Your task to perform on an android device: Open calendar and show me the second week of next month Image 0: 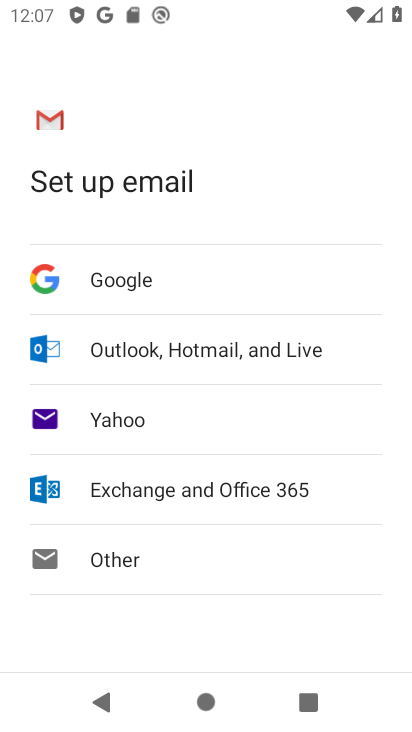
Step 0: click (273, 707)
Your task to perform on an android device: Open calendar and show me the second week of next month Image 1: 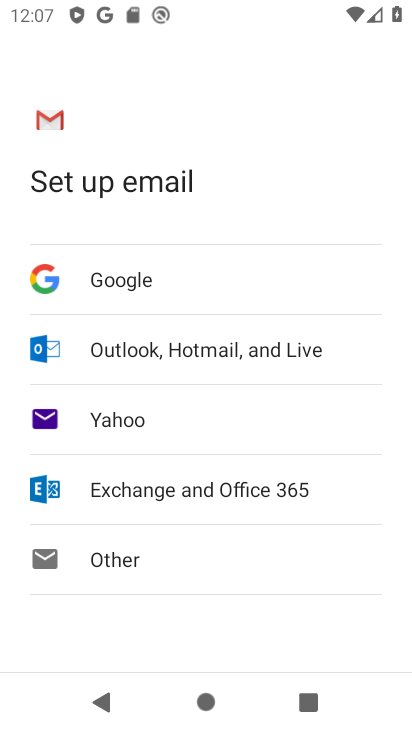
Step 1: press back button
Your task to perform on an android device: Open calendar and show me the second week of next month Image 2: 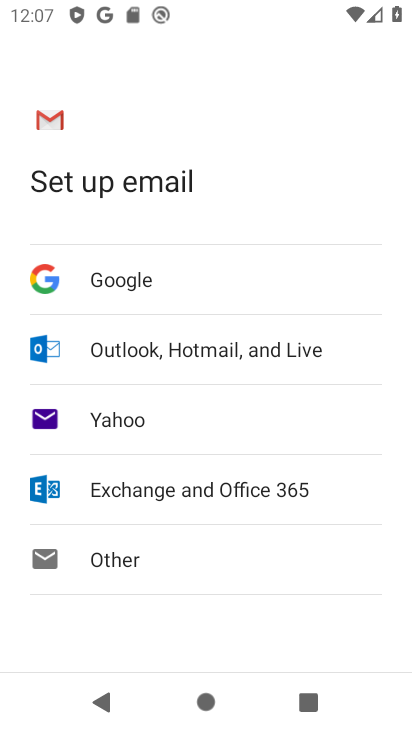
Step 2: press back button
Your task to perform on an android device: Open calendar and show me the second week of next month Image 3: 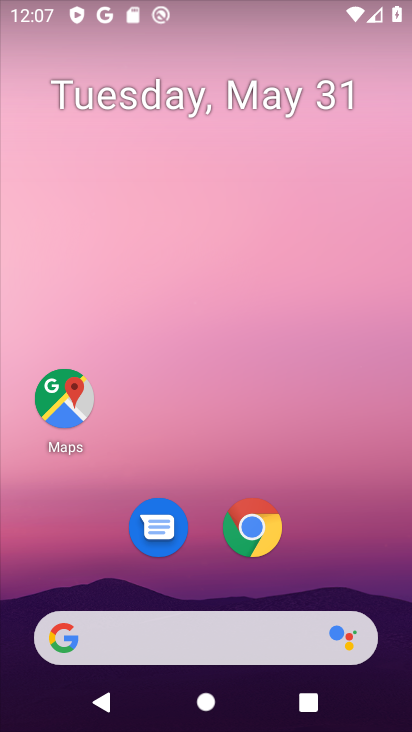
Step 3: drag from (243, 631) to (149, 189)
Your task to perform on an android device: Open calendar and show me the second week of next month Image 4: 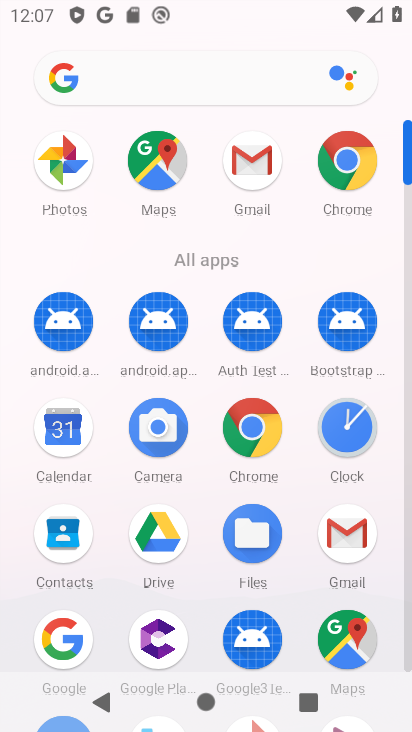
Step 4: click (55, 425)
Your task to perform on an android device: Open calendar and show me the second week of next month Image 5: 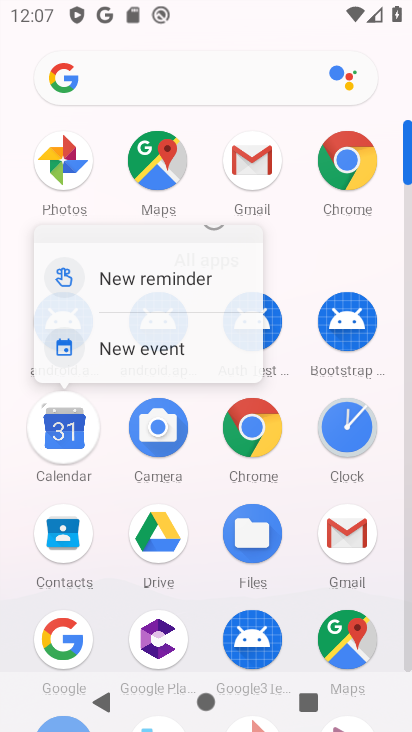
Step 5: click (57, 429)
Your task to perform on an android device: Open calendar and show me the second week of next month Image 6: 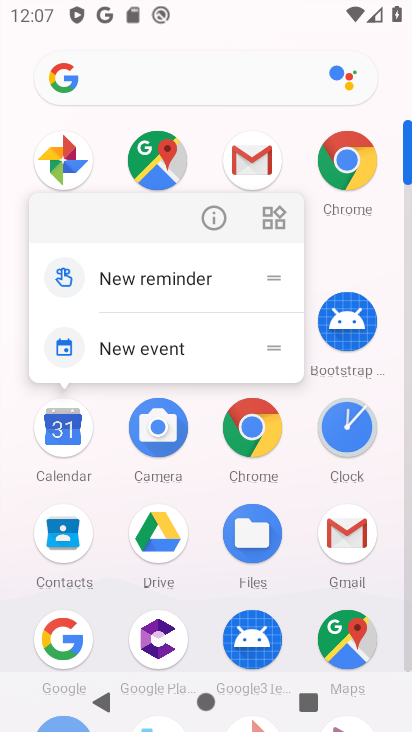
Step 6: click (57, 429)
Your task to perform on an android device: Open calendar and show me the second week of next month Image 7: 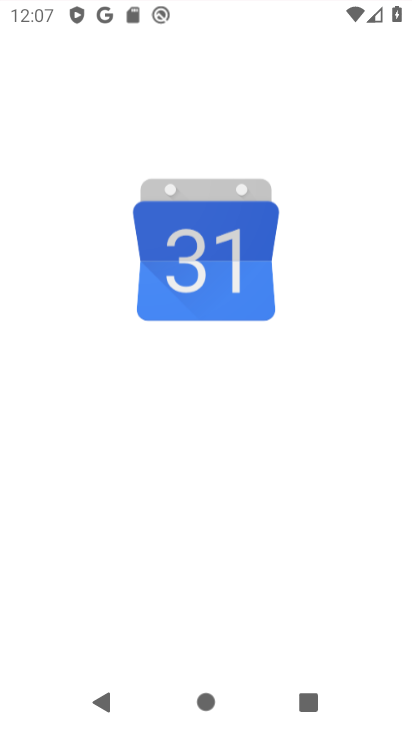
Step 7: click (63, 432)
Your task to perform on an android device: Open calendar and show me the second week of next month Image 8: 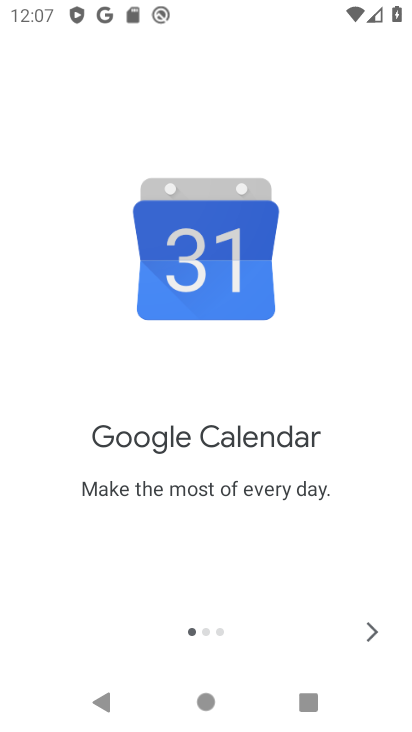
Step 8: click (373, 630)
Your task to perform on an android device: Open calendar and show me the second week of next month Image 9: 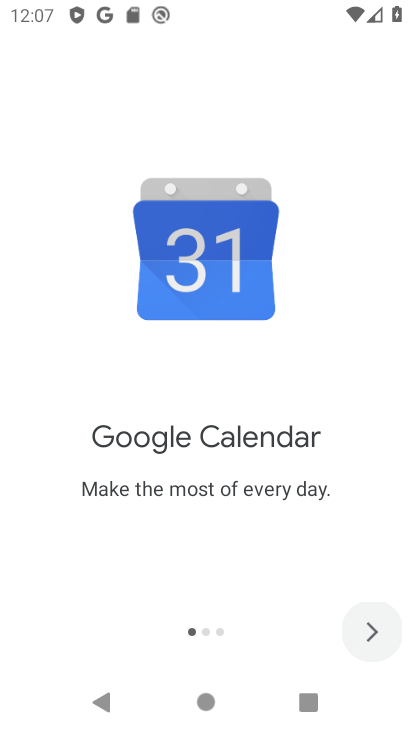
Step 9: click (373, 630)
Your task to perform on an android device: Open calendar and show me the second week of next month Image 10: 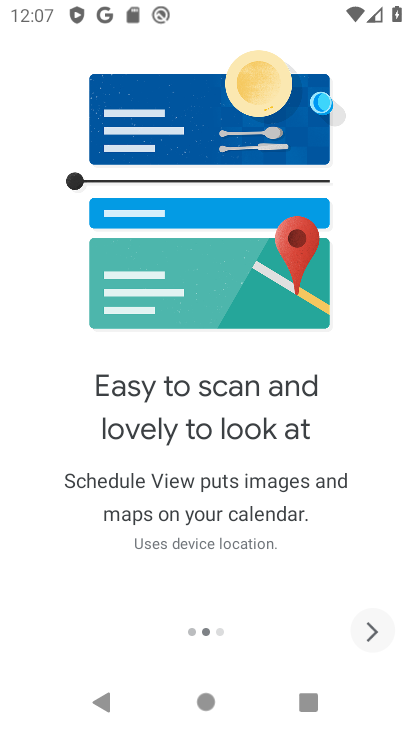
Step 10: click (373, 630)
Your task to perform on an android device: Open calendar and show me the second week of next month Image 11: 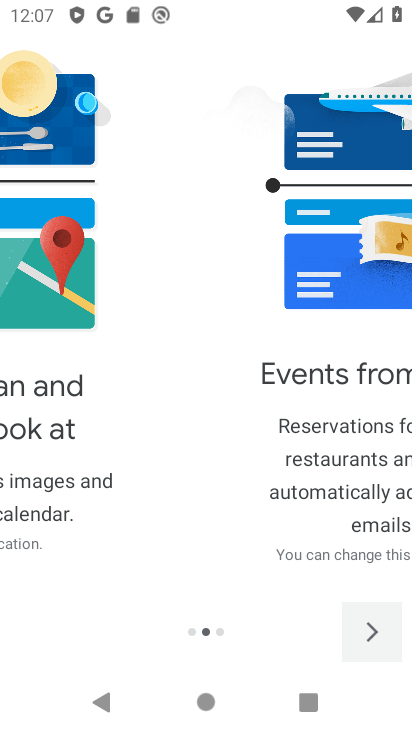
Step 11: click (373, 630)
Your task to perform on an android device: Open calendar and show me the second week of next month Image 12: 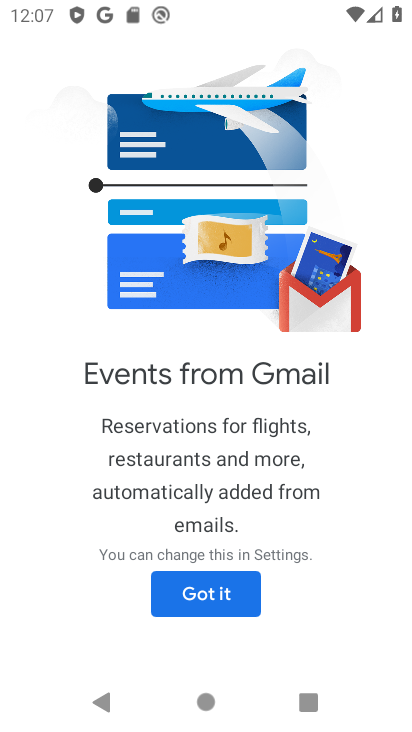
Step 12: click (371, 634)
Your task to perform on an android device: Open calendar and show me the second week of next month Image 13: 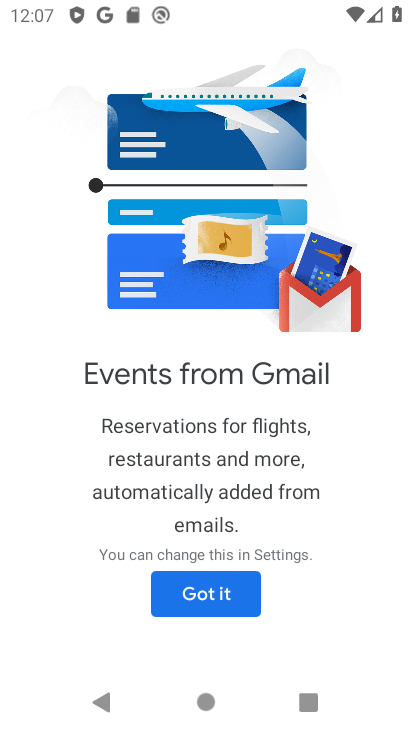
Step 13: click (210, 579)
Your task to perform on an android device: Open calendar and show me the second week of next month Image 14: 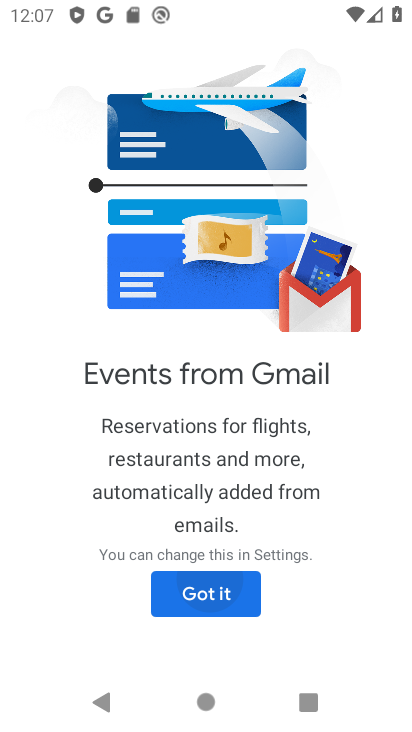
Step 14: click (211, 581)
Your task to perform on an android device: Open calendar and show me the second week of next month Image 15: 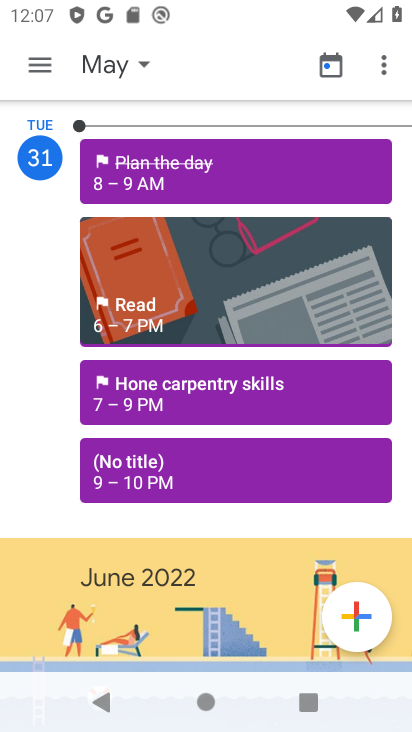
Step 15: click (140, 67)
Your task to perform on an android device: Open calendar and show me the second week of next month Image 16: 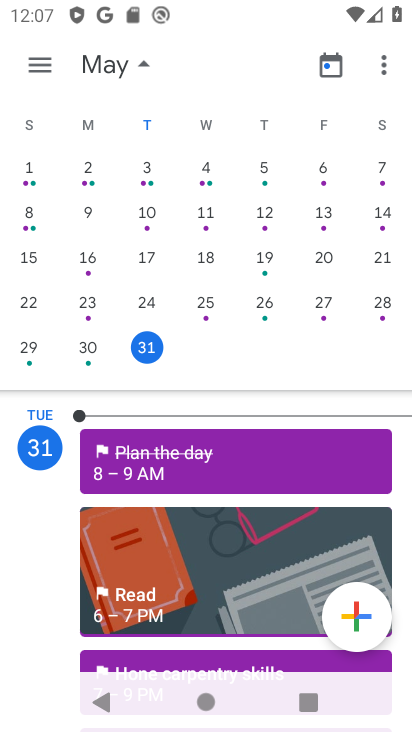
Step 16: drag from (293, 271) to (92, 287)
Your task to perform on an android device: Open calendar and show me the second week of next month Image 17: 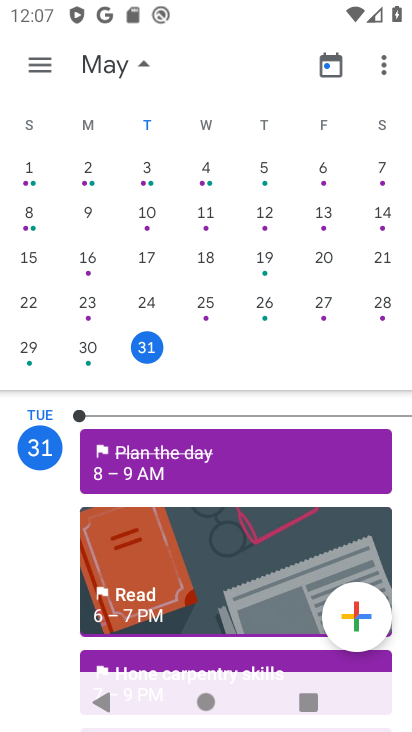
Step 17: drag from (309, 223) to (17, 320)
Your task to perform on an android device: Open calendar and show me the second week of next month Image 18: 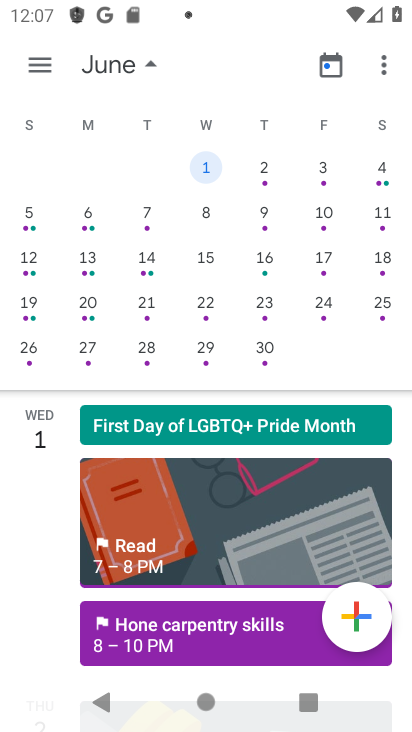
Step 18: click (188, 218)
Your task to perform on an android device: Open calendar and show me the second week of next month Image 19: 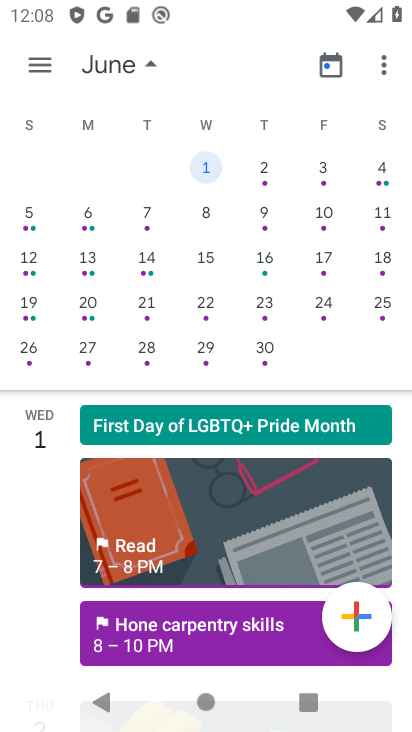
Step 19: click (194, 216)
Your task to perform on an android device: Open calendar and show me the second week of next month Image 20: 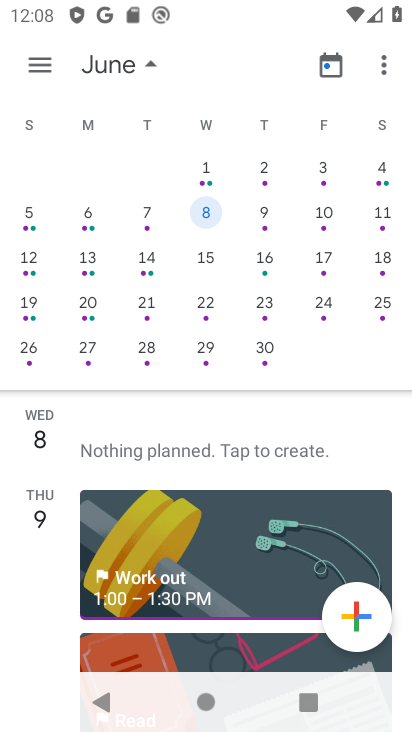
Step 20: click (197, 215)
Your task to perform on an android device: Open calendar and show me the second week of next month Image 21: 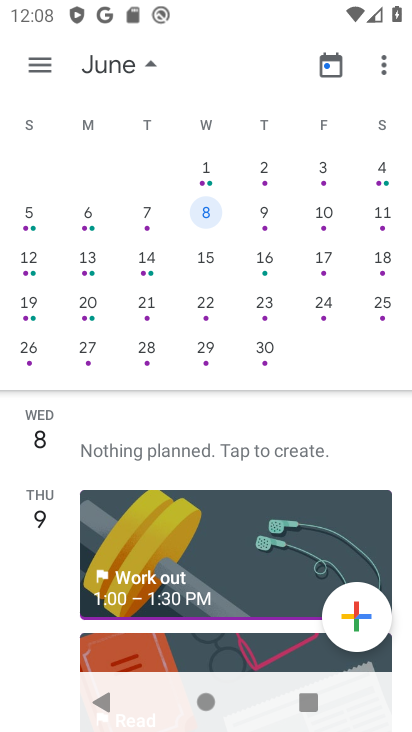
Step 21: task complete